Your task to perform on an android device: open a bookmark in the chrome app Image 0: 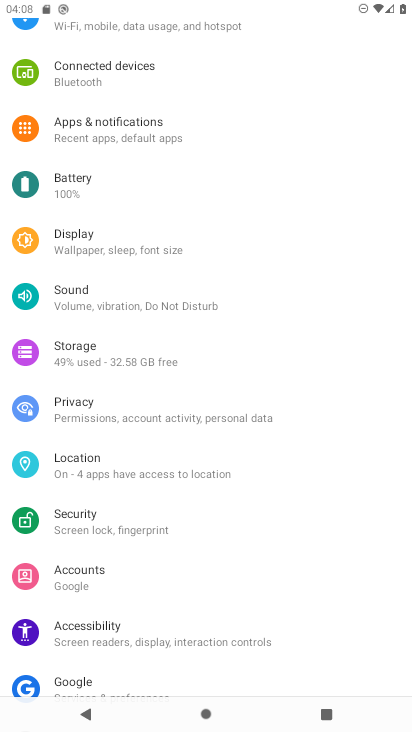
Step 0: press home button
Your task to perform on an android device: open a bookmark in the chrome app Image 1: 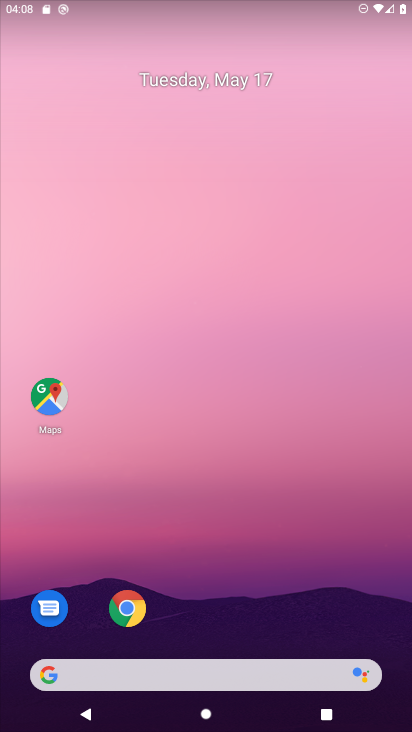
Step 1: drag from (220, 650) to (174, 205)
Your task to perform on an android device: open a bookmark in the chrome app Image 2: 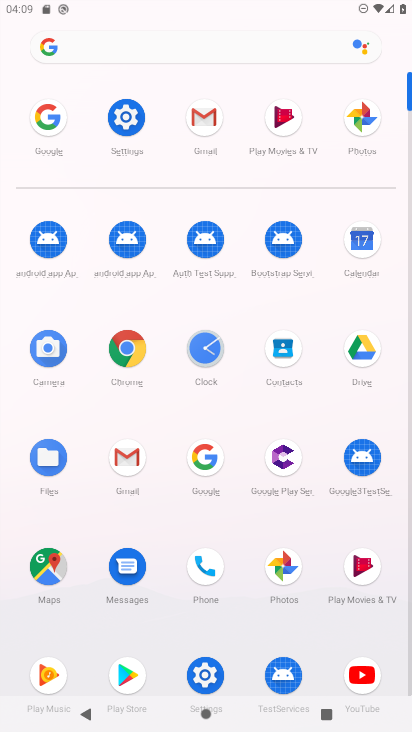
Step 2: click (127, 353)
Your task to perform on an android device: open a bookmark in the chrome app Image 3: 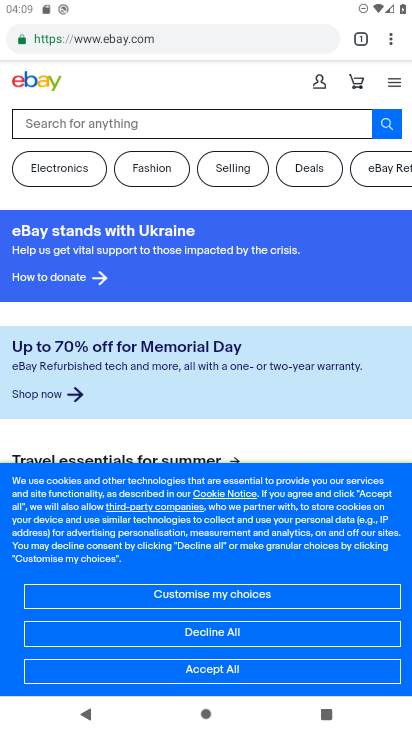
Step 3: click (392, 38)
Your task to perform on an android device: open a bookmark in the chrome app Image 4: 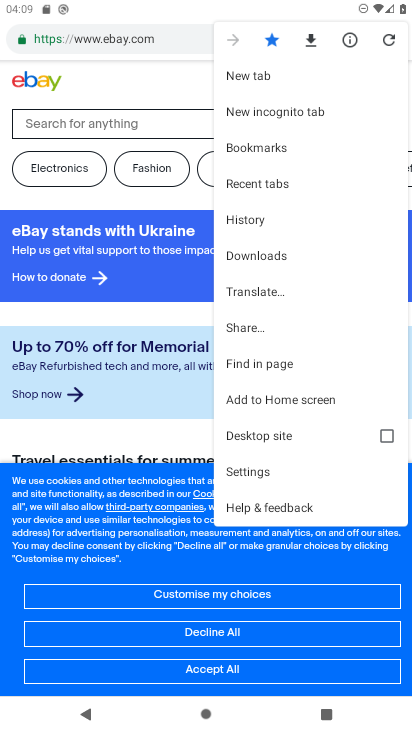
Step 4: click (238, 151)
Your task to perform on an android device: open a bookmark in the chrome app Image 5: 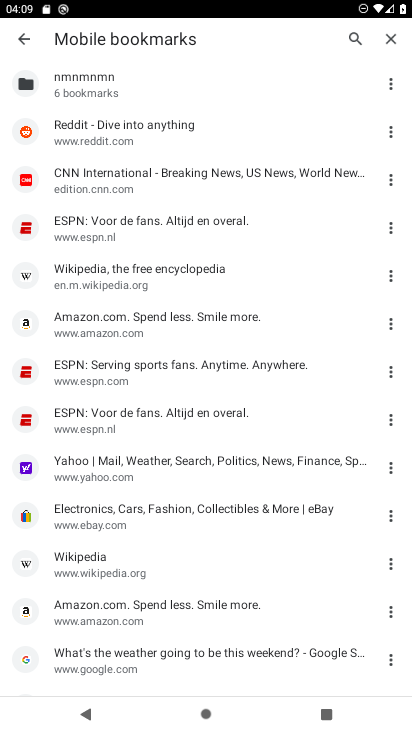
Step 5: task complete